Your task to perform on an android device: Go to sound settings Image 0: 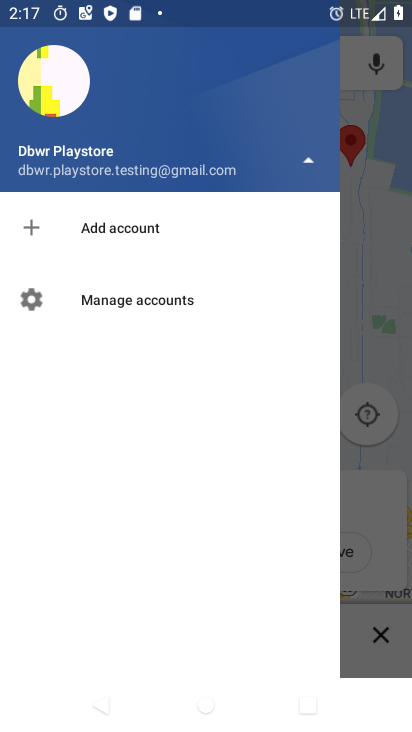
Step 0: press home button
Your task to perform on an android device: Go to sound settings Image 1: 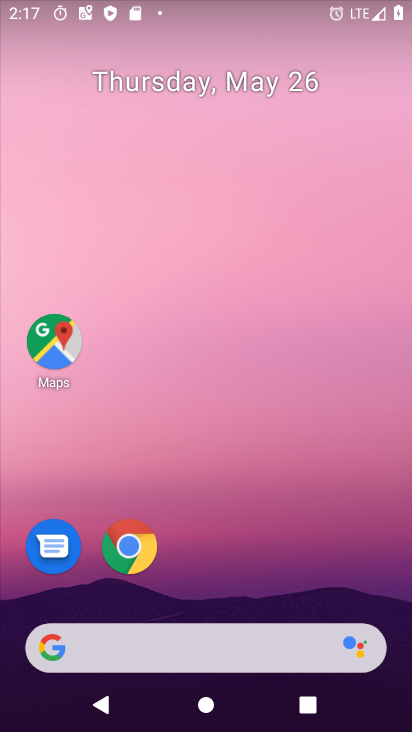
Step 1: click (141, 551)
Your task to perform on an android device: Go to sound settings Image 2: 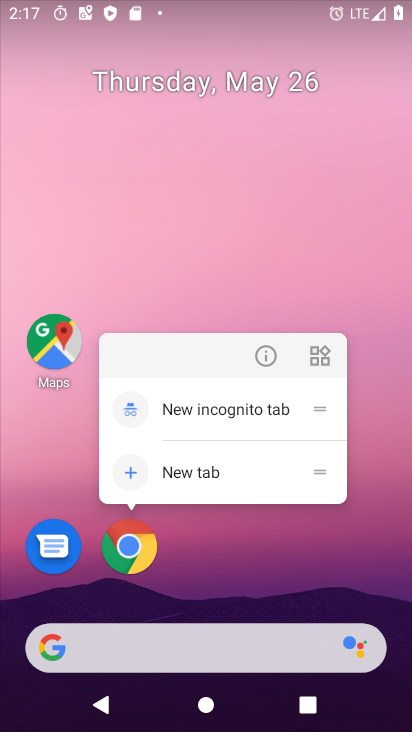
Step 2: click (241, 561)
Your task to perform on an android device: Go to sound settings Image 3: 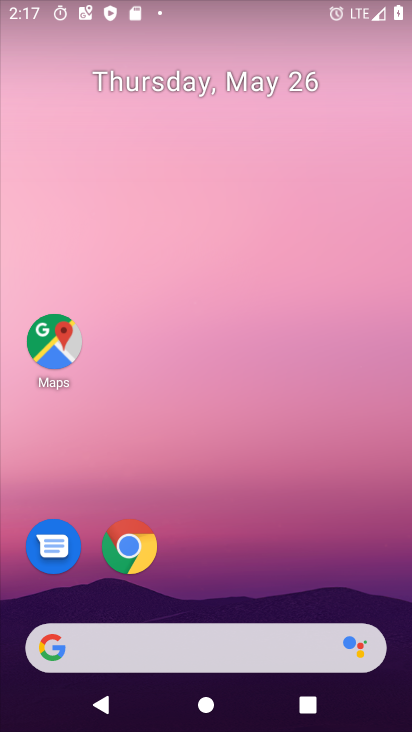
Step 3: drag from (222, 568) to (272, 127)
Your task to perform on an android device: Go to sound settings Image 4: 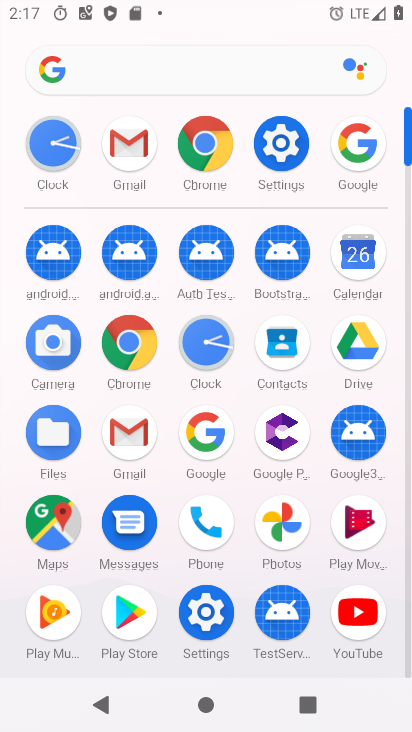
Step 4: drag from (287, 269) to (282, 137)
Your task to perform on an android device: Go to sound settings Image 5: 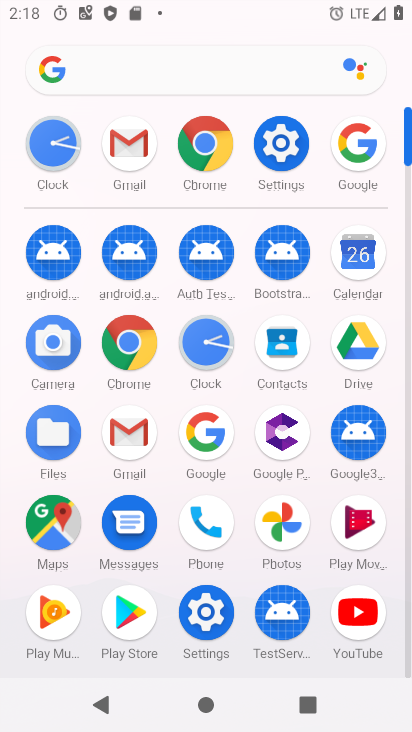
Step 5: click (271, 130)
Your task to perform on an android device: Go to sound settings Image 6: 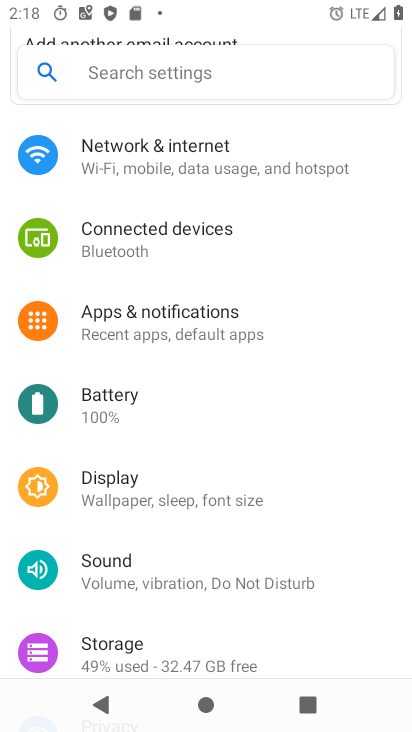
Step 6: click (120, 581)
Your task to perform on an android device: Go to sound settings Image 7: 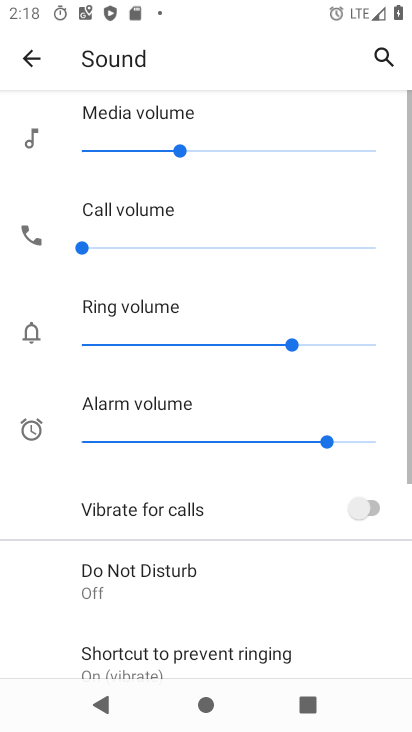
Step 7: task complete